Your task to perform on an android device: Open Reddit.com Image 0: 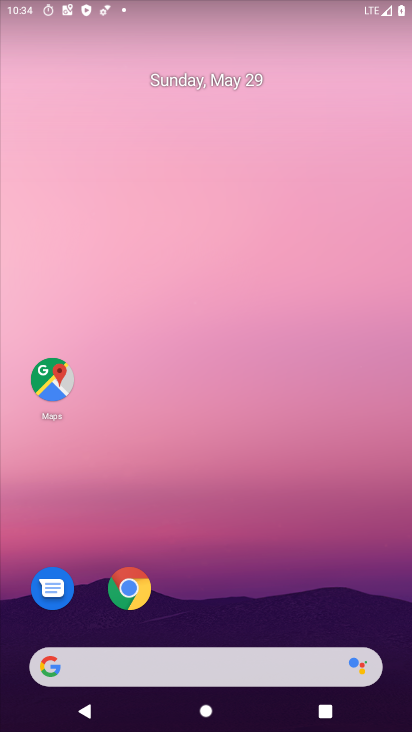
Step 0: drag from (209, 584) to (220, 180)
Your task to perform on an android device: Open Reddit.com Image 1: 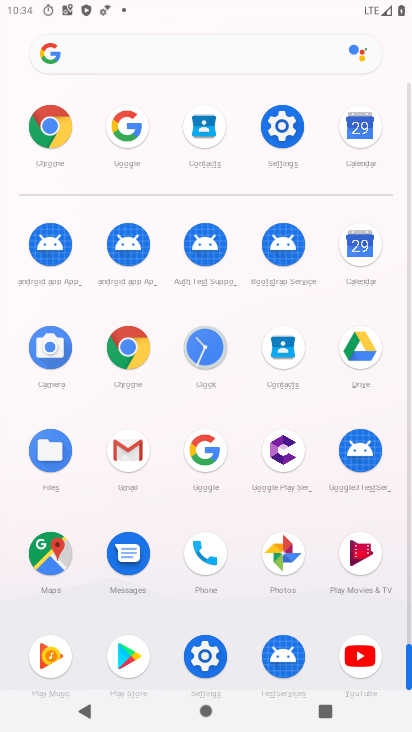
Step 1: drag from (174, 214) to (168, 67)
Your task to perform on an android device: Open Reddit.com Image 2: 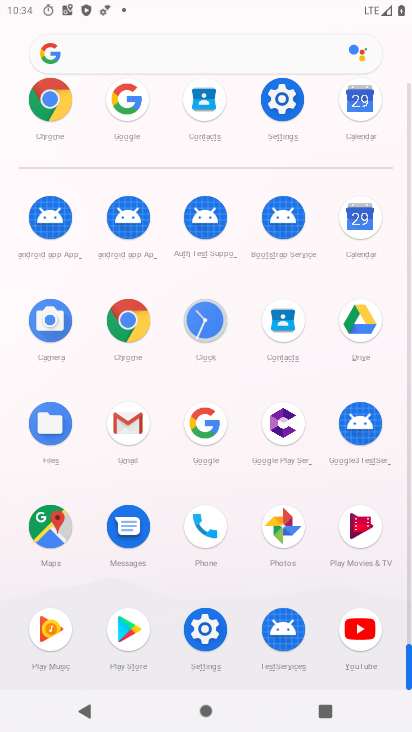
Step 2: click (139, 337)
Your task to perform on an android device: Open Reddit.com Image 3: 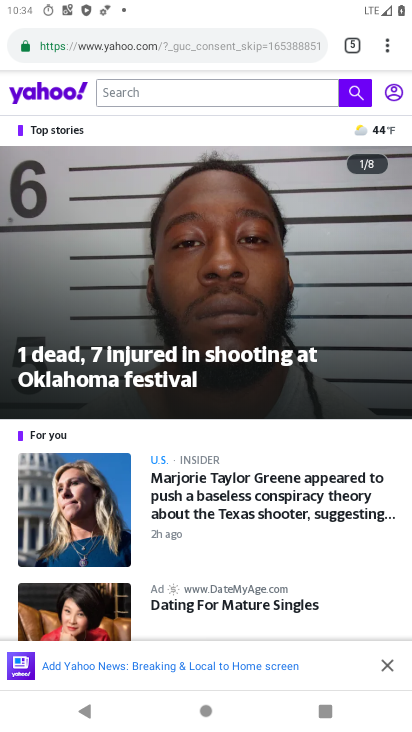
Step 3: click (354, 45)
Your task to perform on an android device: Open Reddit.com Image 4: 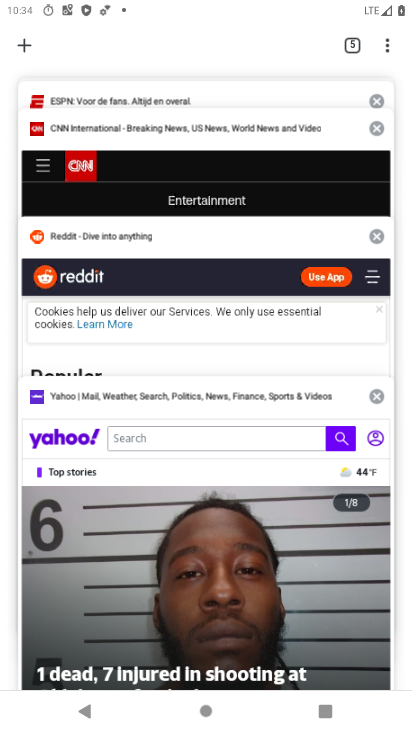
Step 4: click (146, 301)
Your task to perform on an android device: Open Reddit.com Image 5: 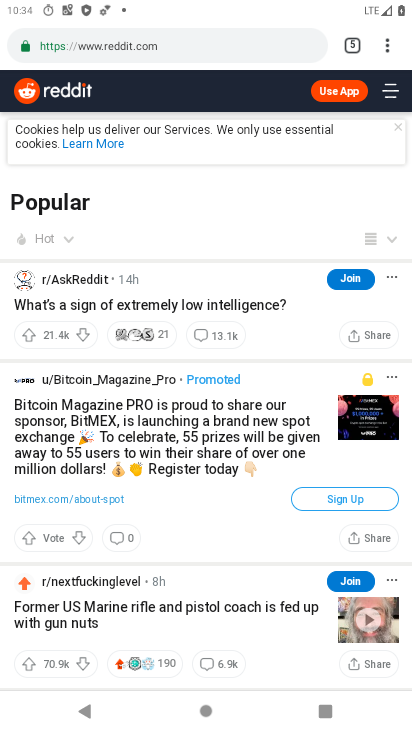
Step 5: task complete